Your task to perform on an android device: Go to Android settings Image 0: 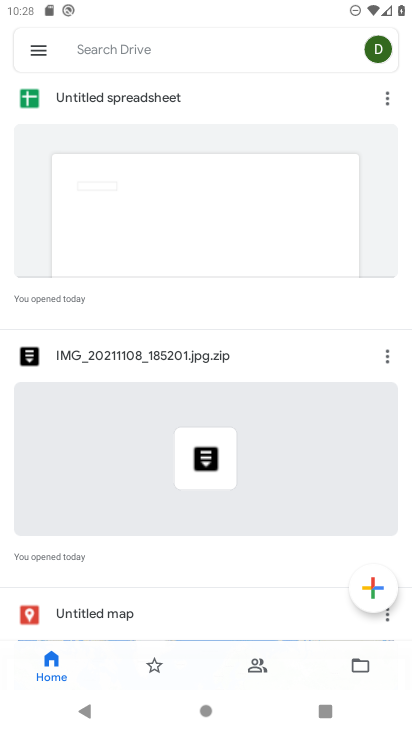
Step 0: press home button
Your task to perform on an android device: Go to Android settings Image 1: 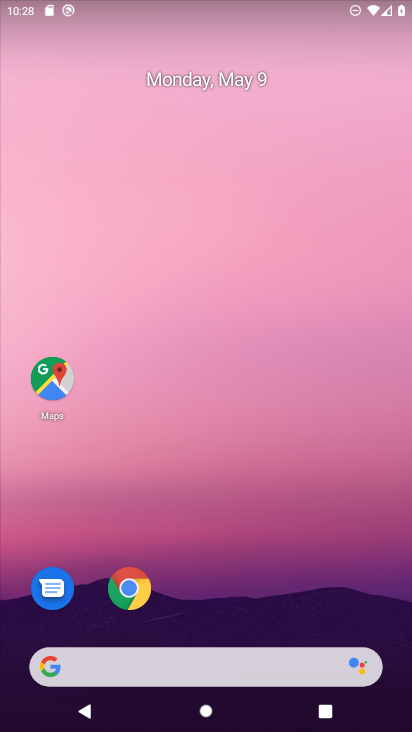
Step 1: drag from (215, 597) to (188, 5)
Your task to perform on an android device: Go to Android settings Image 2: 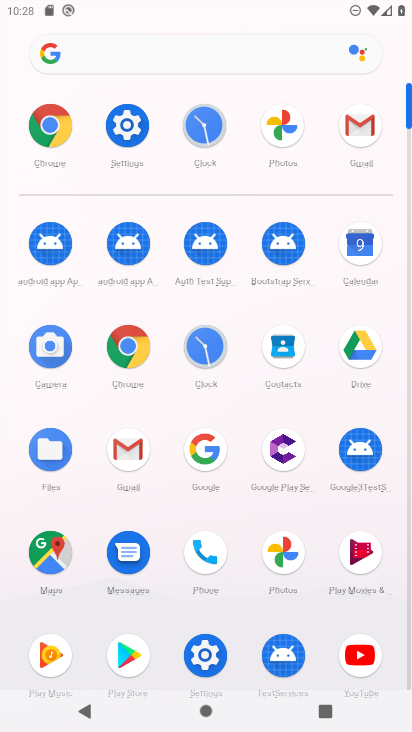
Step 2: click (362, 666)
Your task to perform on an android device: Go to Android settings Image 3: 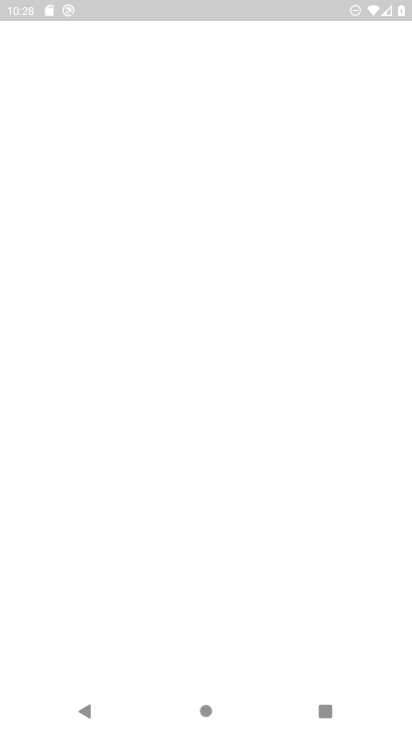
Step 3: press home button
Your task to perform on an android device: Go to Android settings Image 4: 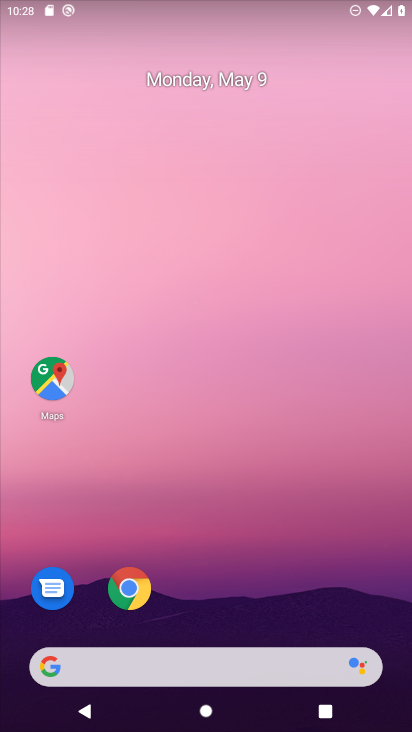
Step 4: drag from (232, 610) to (245, 0)
Your task to perform on an android device: Go to Android settings Image 5: 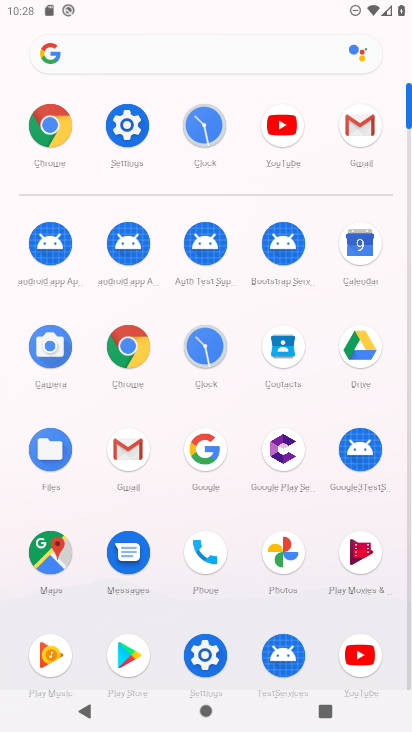
Step 5: click (209, 671)
Your task to perform on an android device: Go to Android settings Image 6: 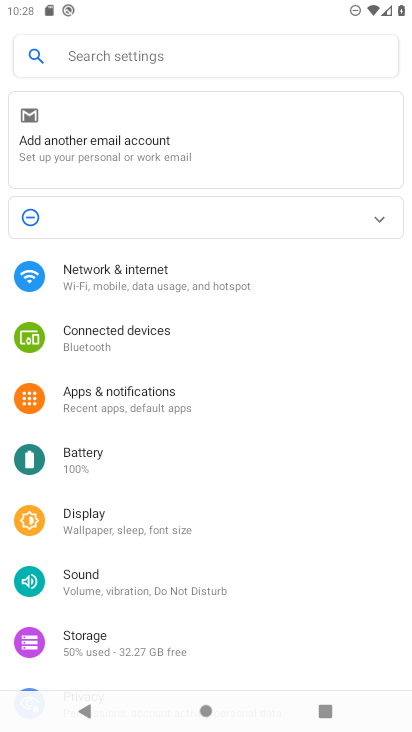
Step 6: task complete